Your task to perform on an android device: Search for "acer predator" on walmart.com, select the first entry, add it to the cart, then select checkout. Image 0: 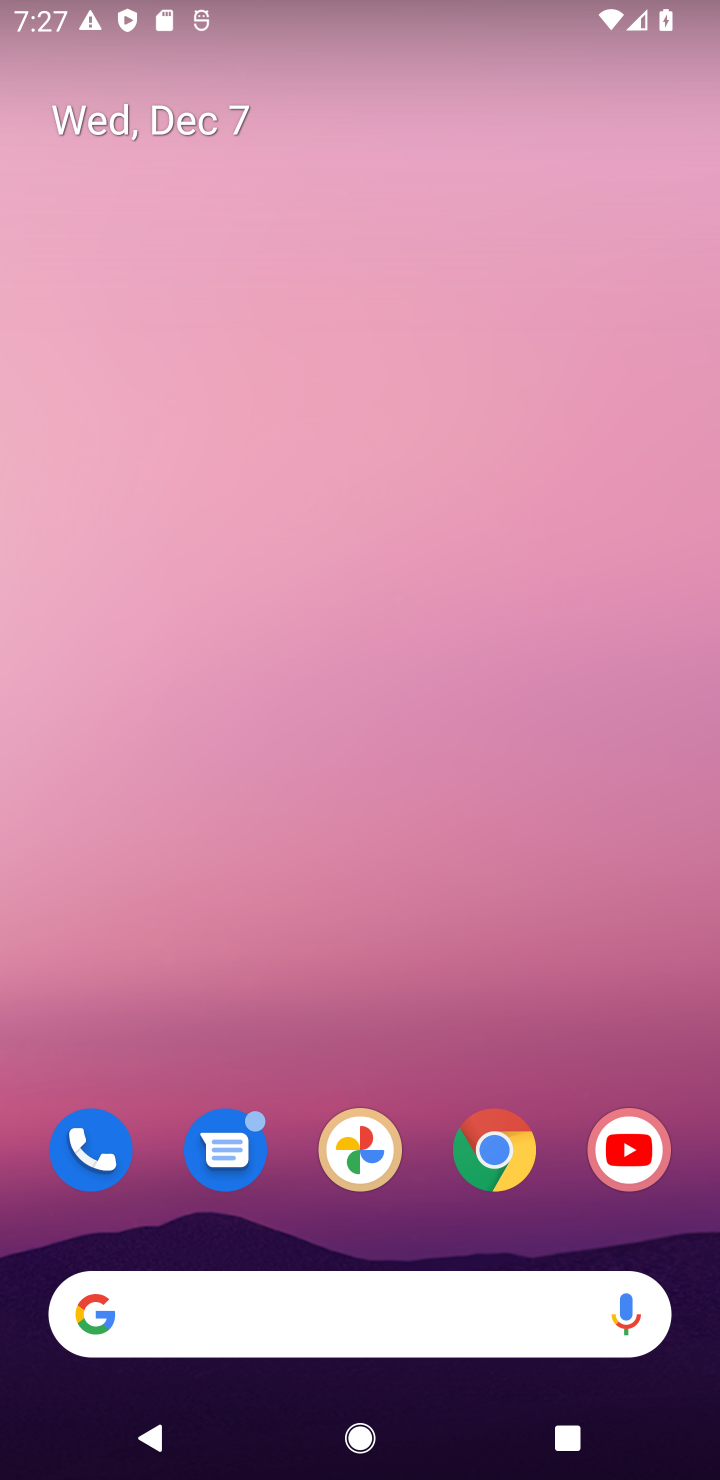
Step 0: click (503, 1164)
Your task to perform on an android device: Search for "acer predator" on walmart.com, select the first entry, add it to the cart, then select checkout. Image 1: 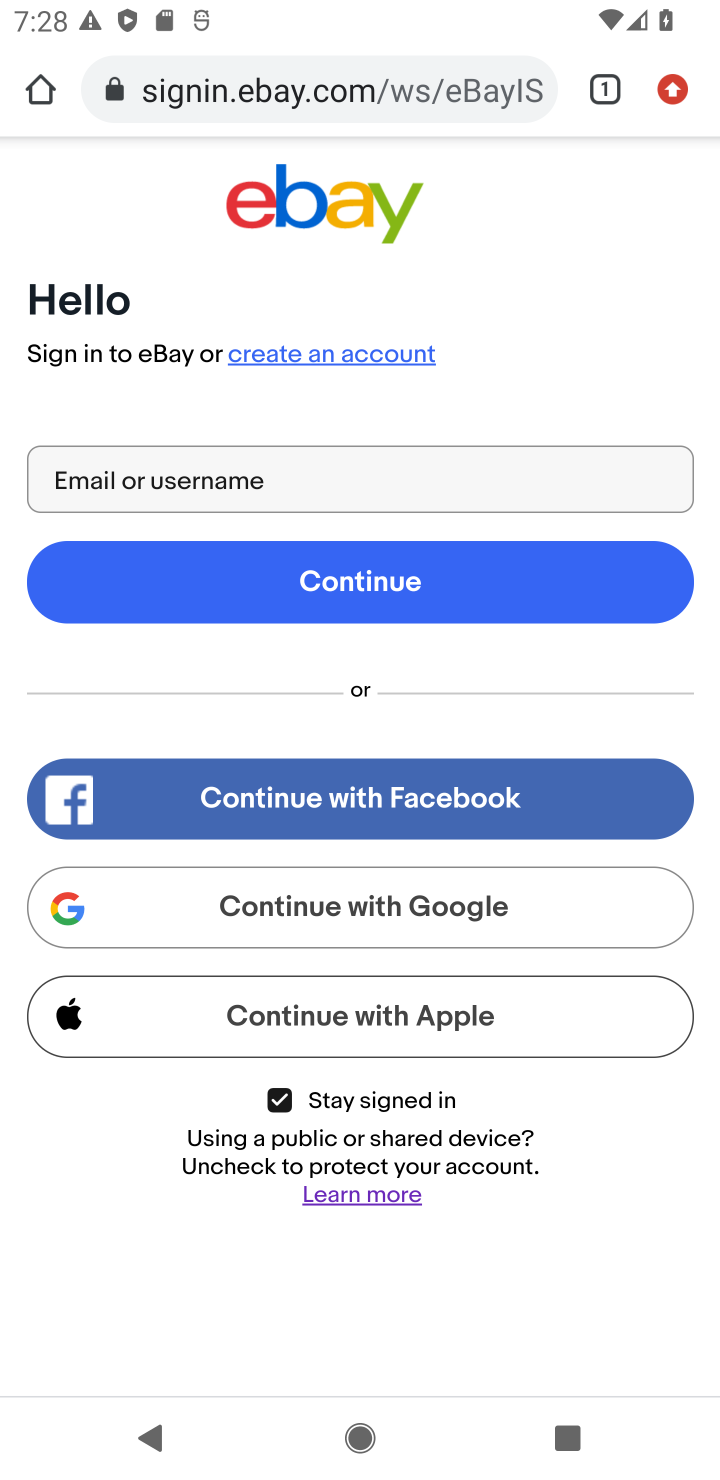
Step 1: click (343, 94)
Your task to perform on an android device: Search for "acer predator" on walmart.com, select the first entry, add it to the cart, then select checkout. Image 2: 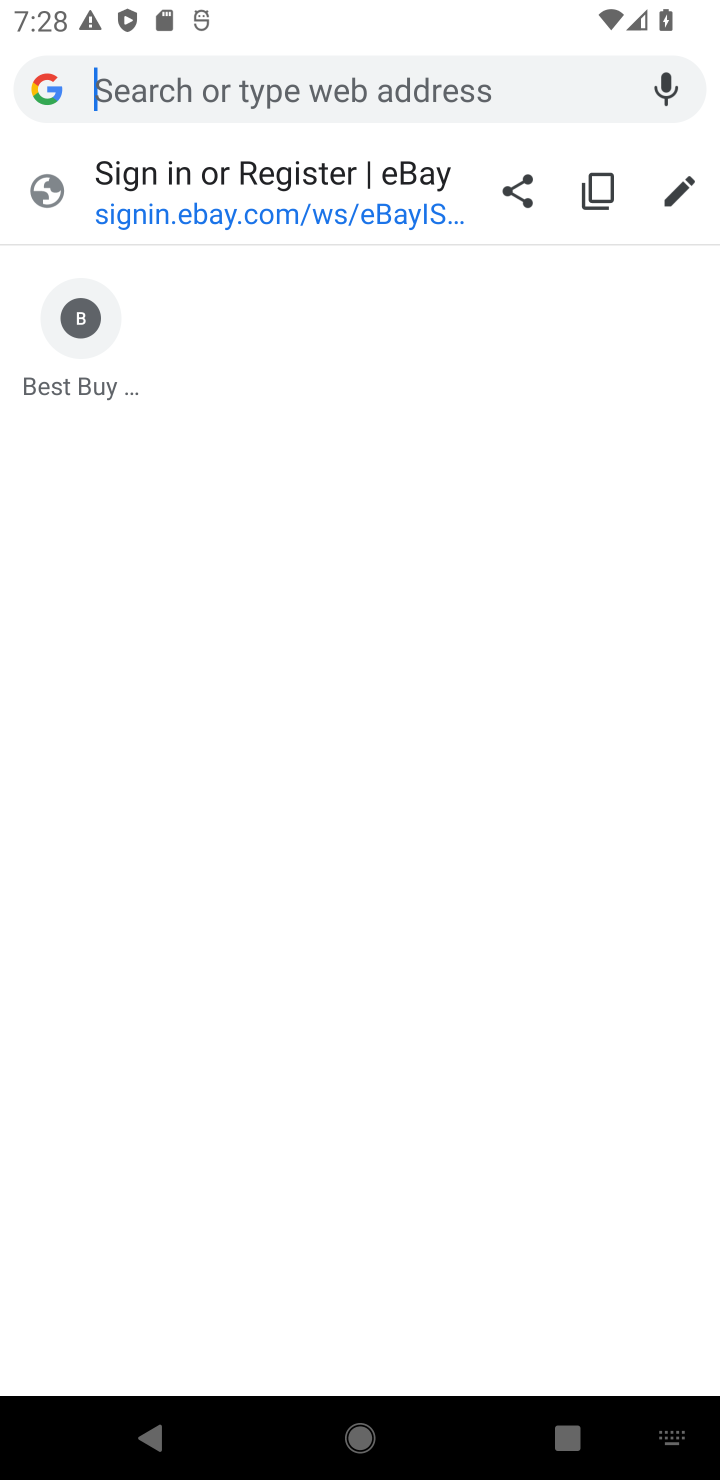
Step 2: type "walmart"
Your task to perform on an android device: Search for "acer predator" on walmart.com, select the first entry, add it to the cart, then select checkout. Image 3: 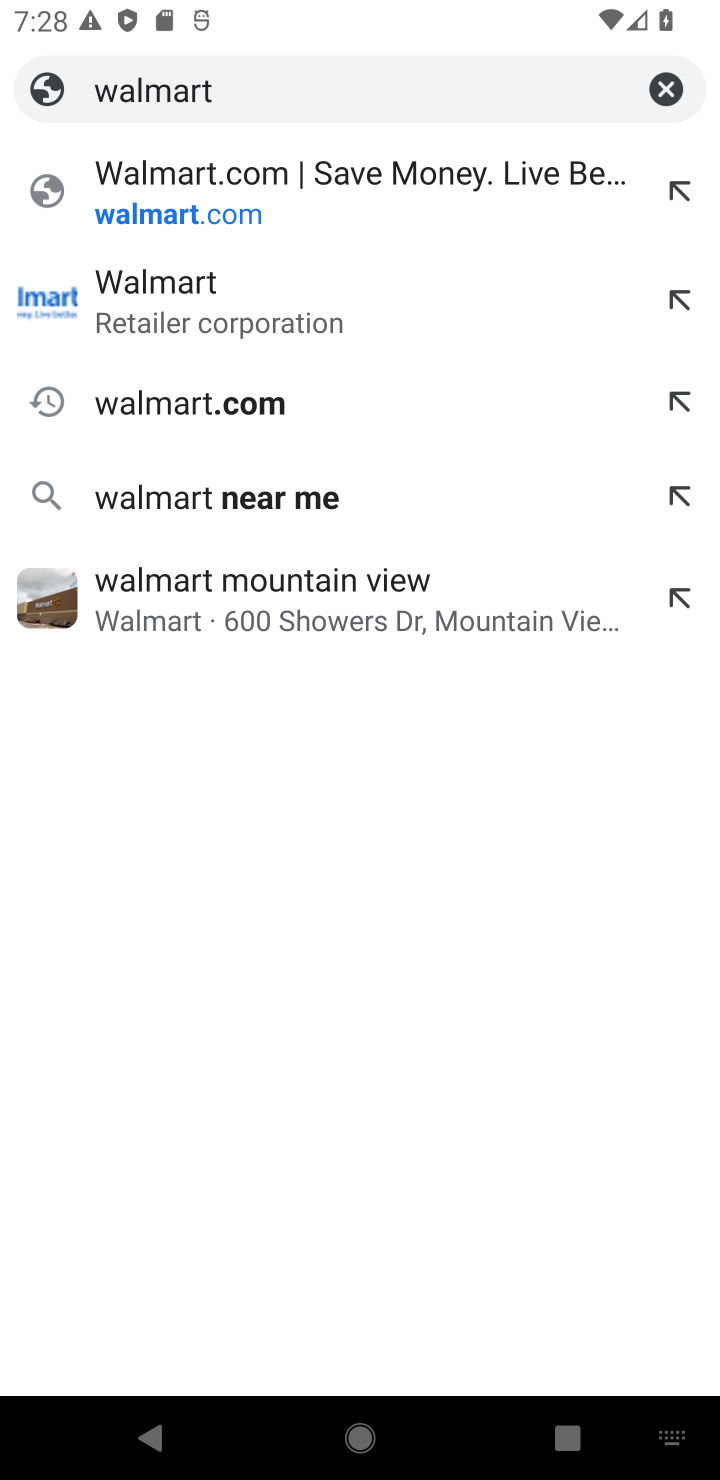
Step 3: click (439, 191)
Your task to perform on an android device: Search for "acer predator" on walmart.com, select the first entry, add it to the cart, then select checkout. Image 4: 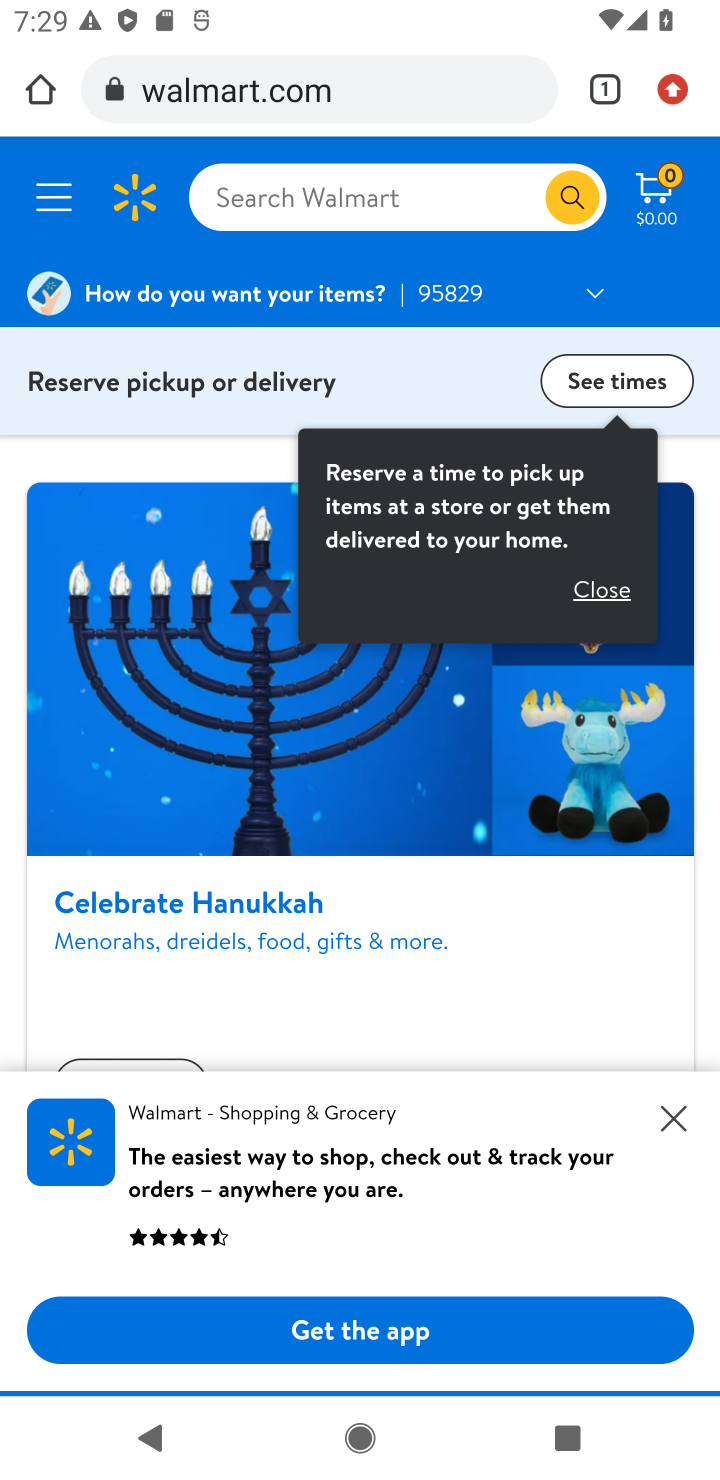
Step 4: click (439, 191)
Your task to perform on an android device: Search for "acer predator" on walmart.com, select the first entry, add it to the cart, then select checkout. Image 5: 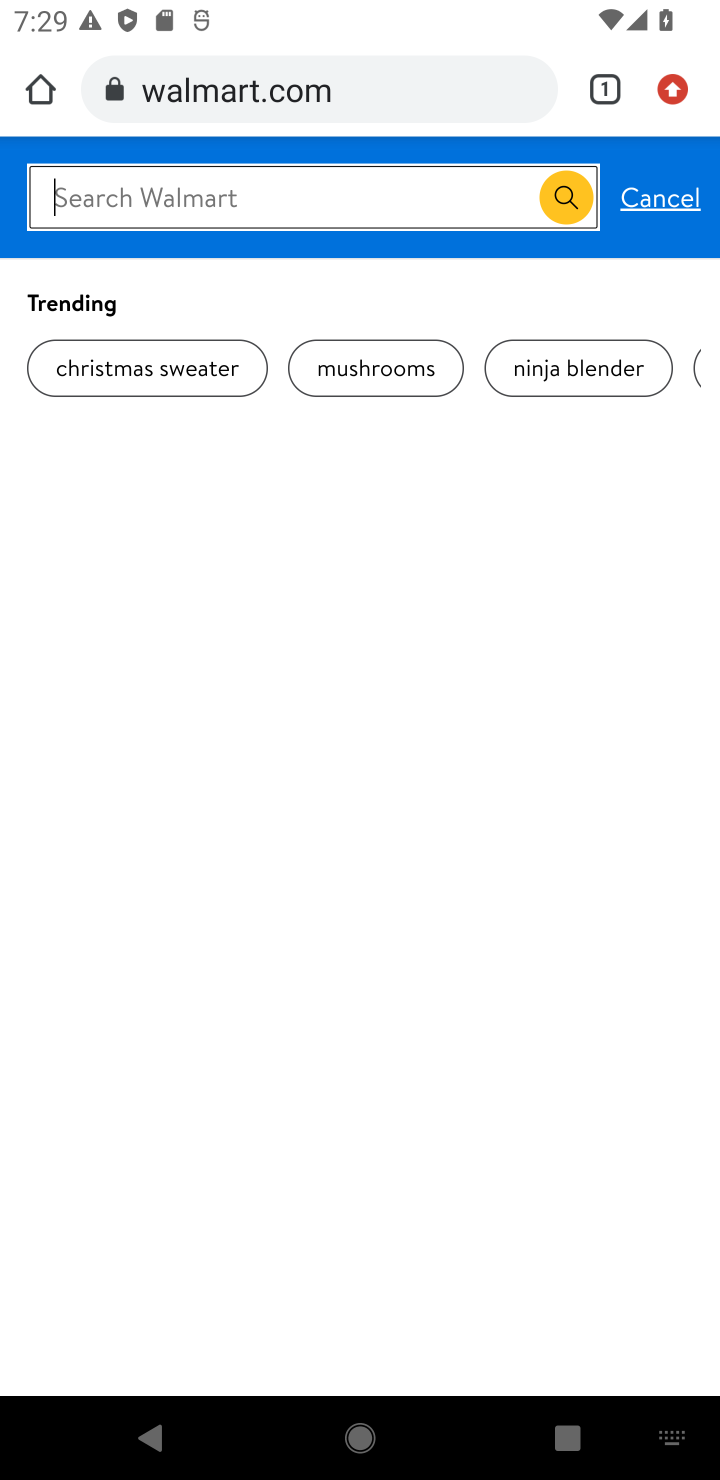
Step 5: type "acer predator"
Your task to perform on an android device: Search for "acer predator" on walmart.com, select the first entry, add it to the cart, then select checkout. Image 6: 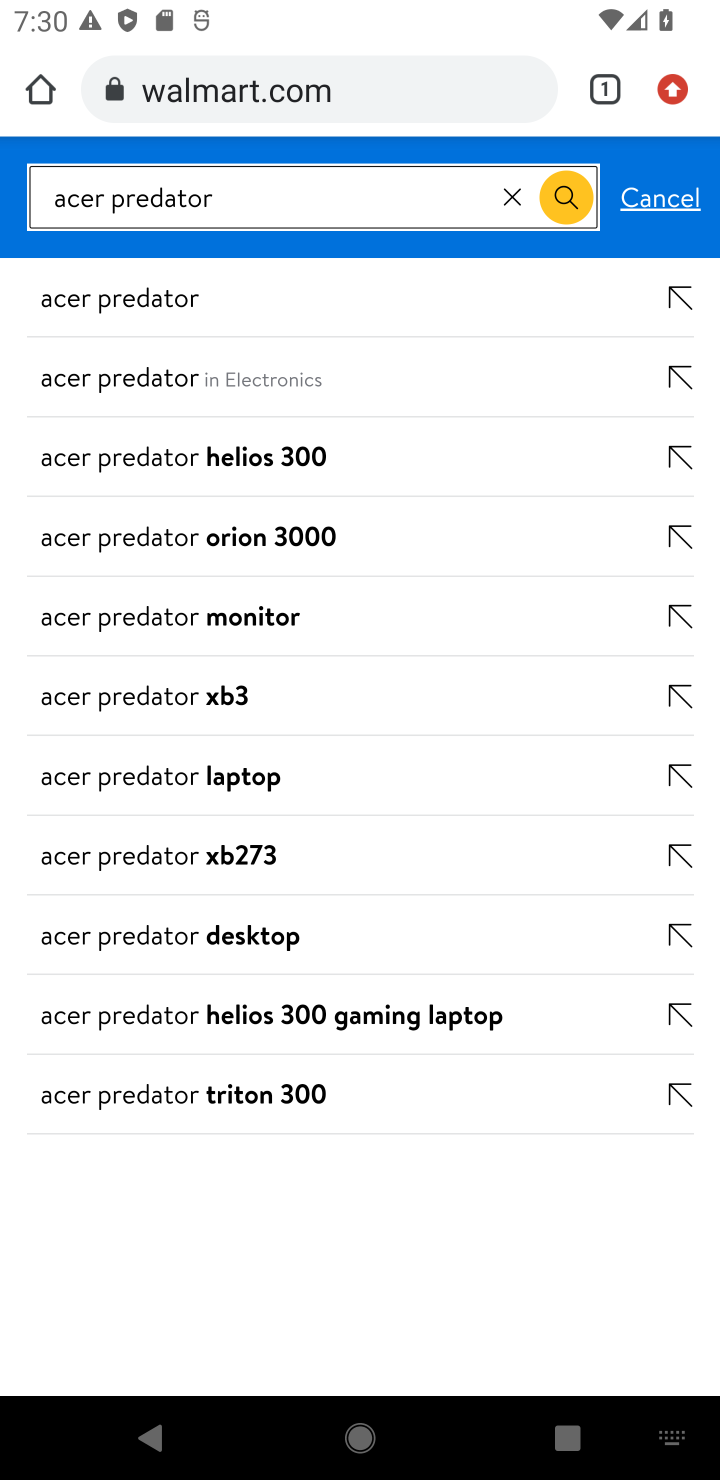
Step 6: click (236, 295)
Your task to perform on an android device: Search for "acer predator" on walmart.com, select the first entry, add it to the cart, then select checkout. Image 7: 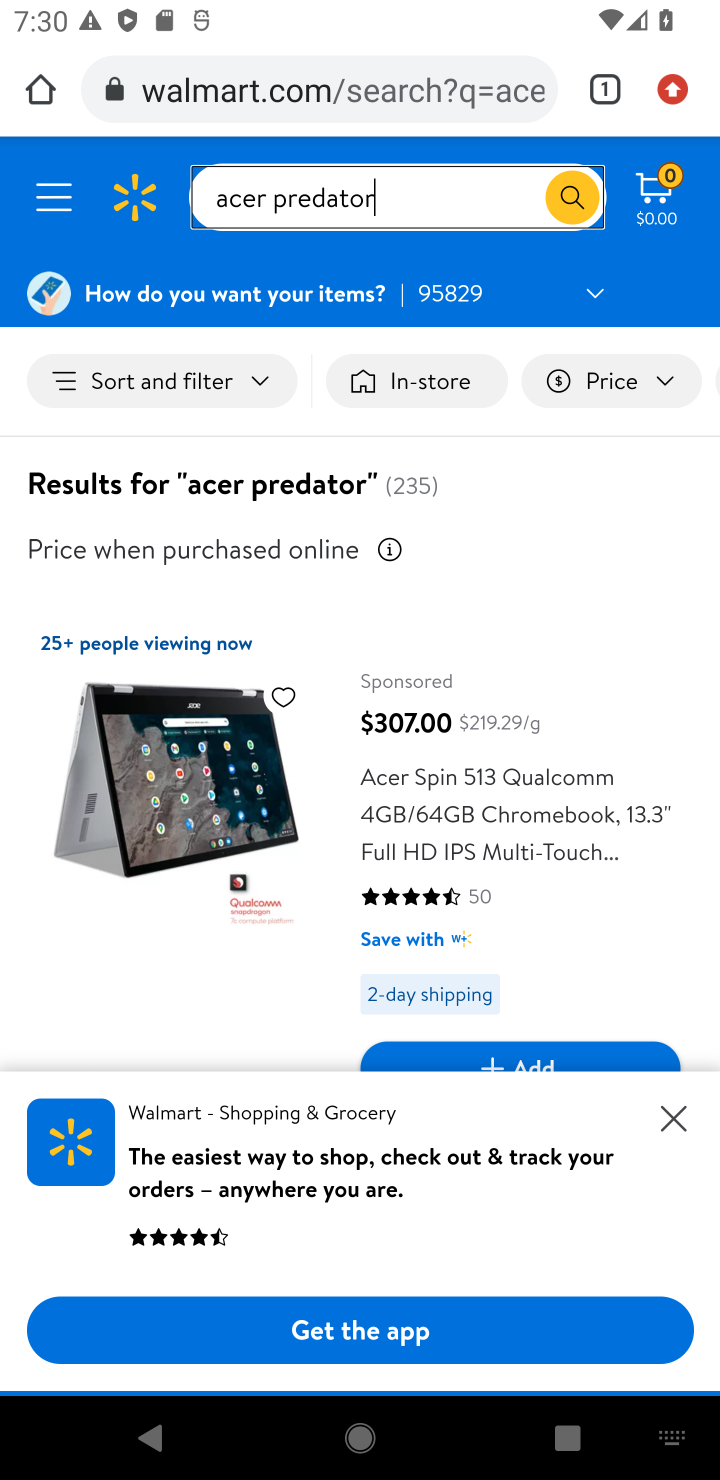
Step 7: click (670, 1115)
Your task to perform on an android device: Search for "acer predator" on walmart.com, select the first entry, add it to the cart, then select checkout. Image 8: 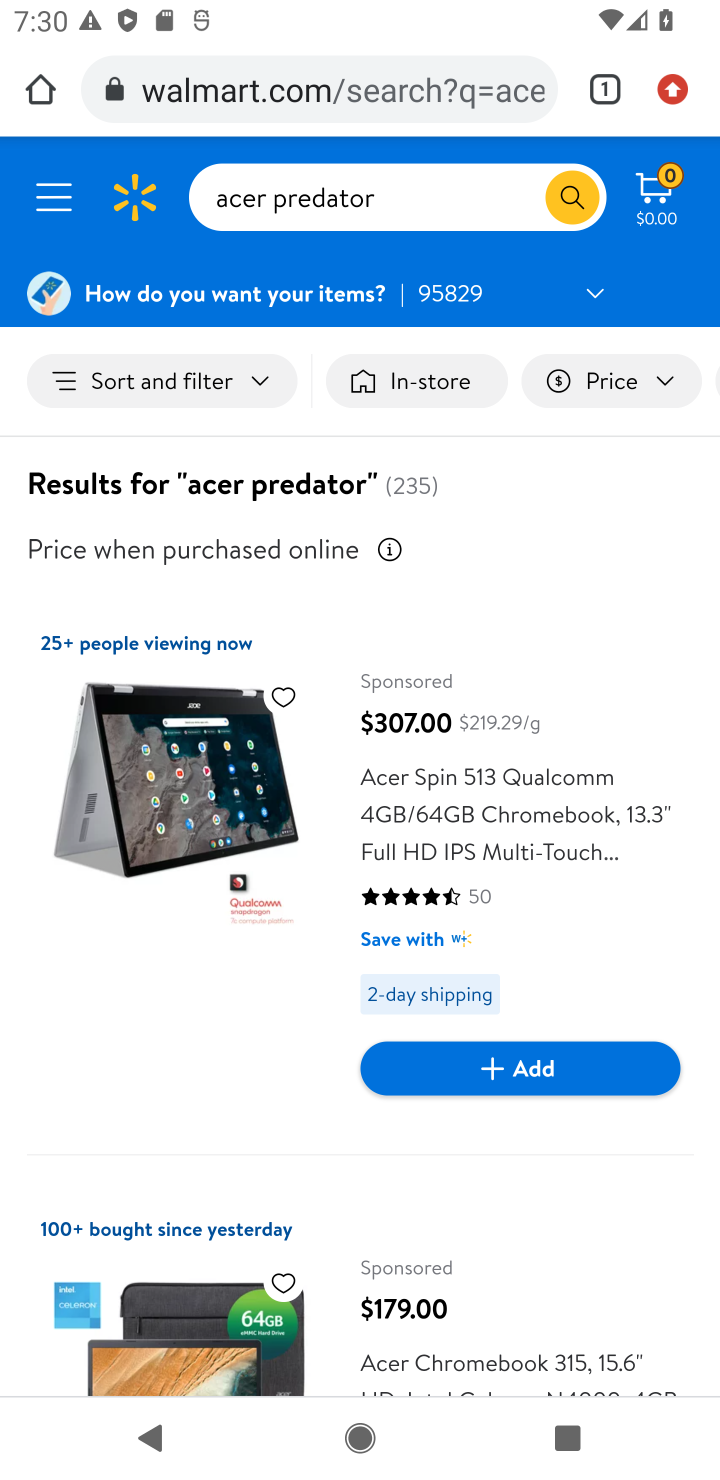
Step 8: click (549, 1068)
Your task to perform on an android device: Search for "acer predator" on walmart.com, select the first entry, add it to the cart, then select checkout. Image 9: 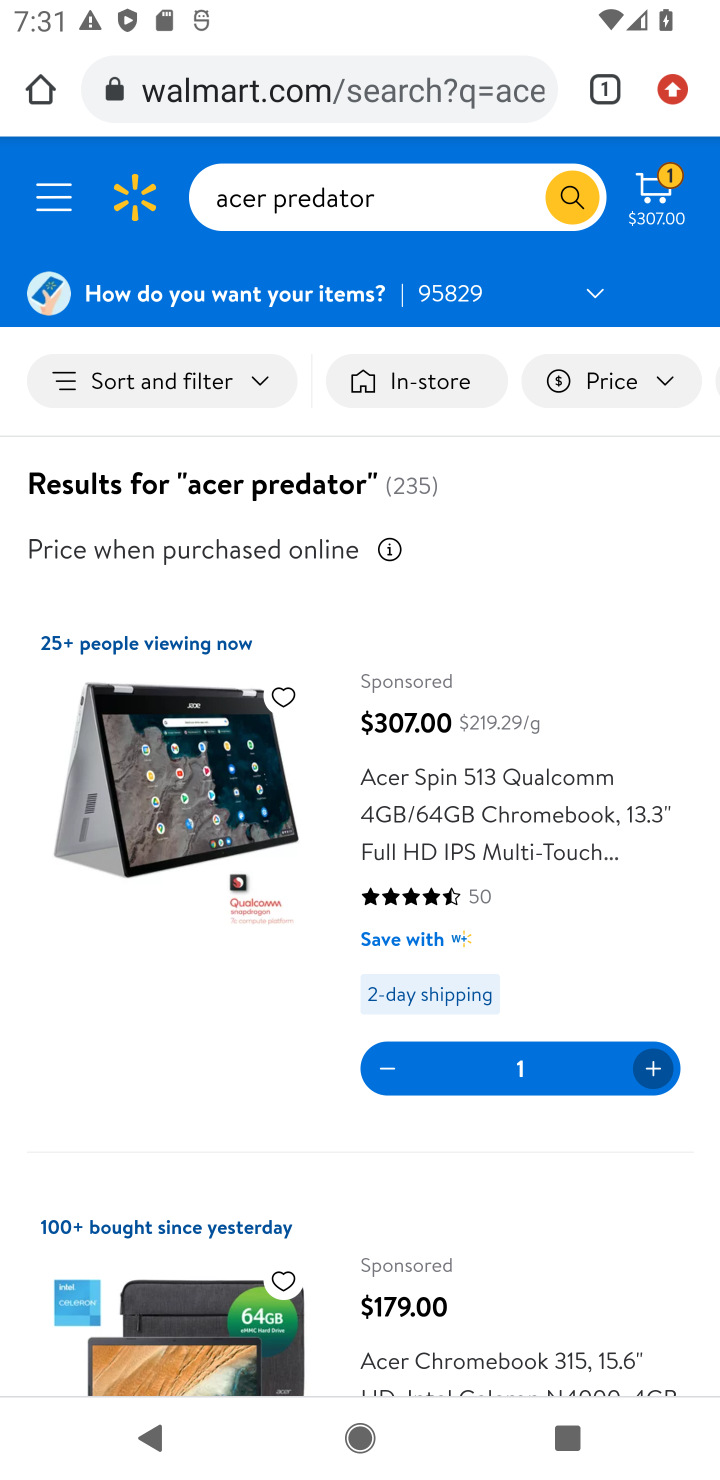
Step 9: click (661, 193)
Your task to perform on an android device: Search for "acer predator" on walmart.com, select the first entry, add it to the cart, then select checkout. Image 10: 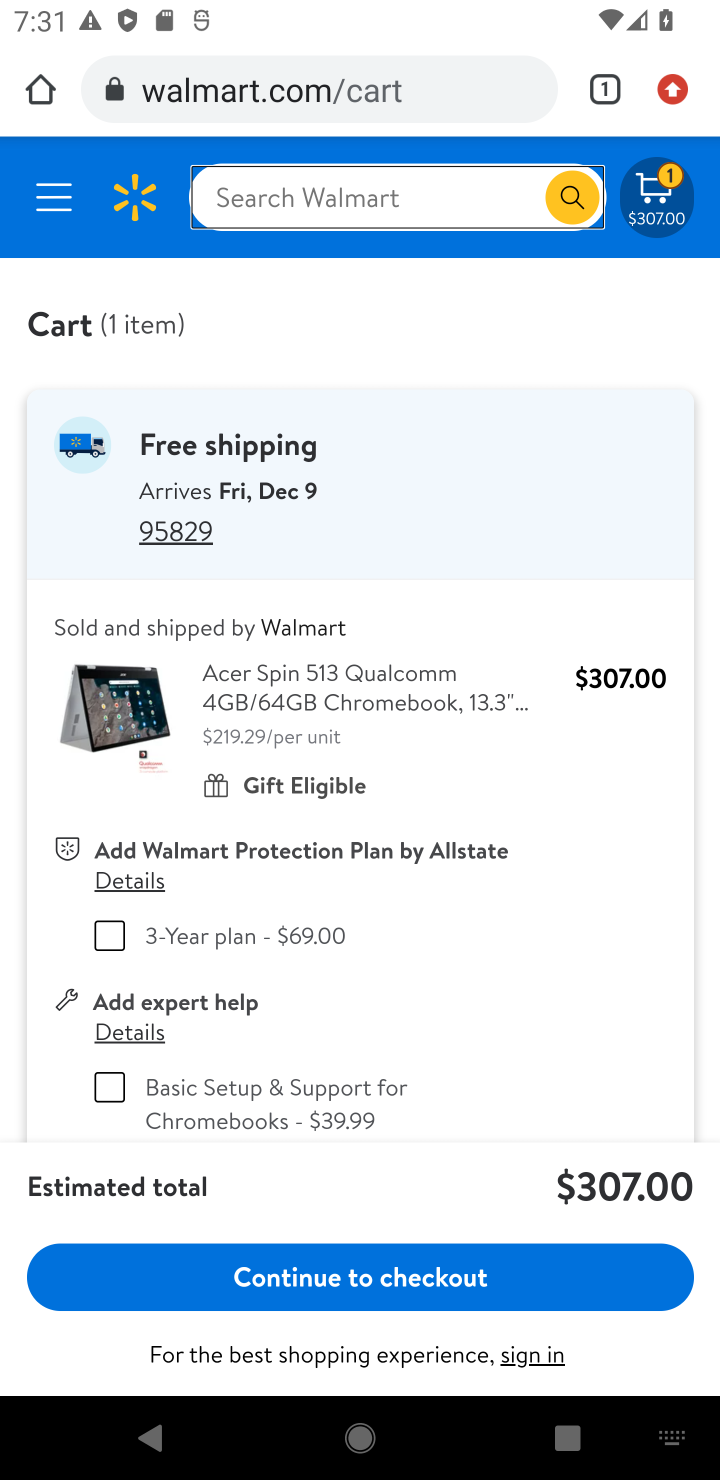
Step 10: click (362, 1270)
Your task to perform on an android device: Search for "acer predator" on walmart.com, select the first entry, add it to the cart, then select checkout. Image 11: 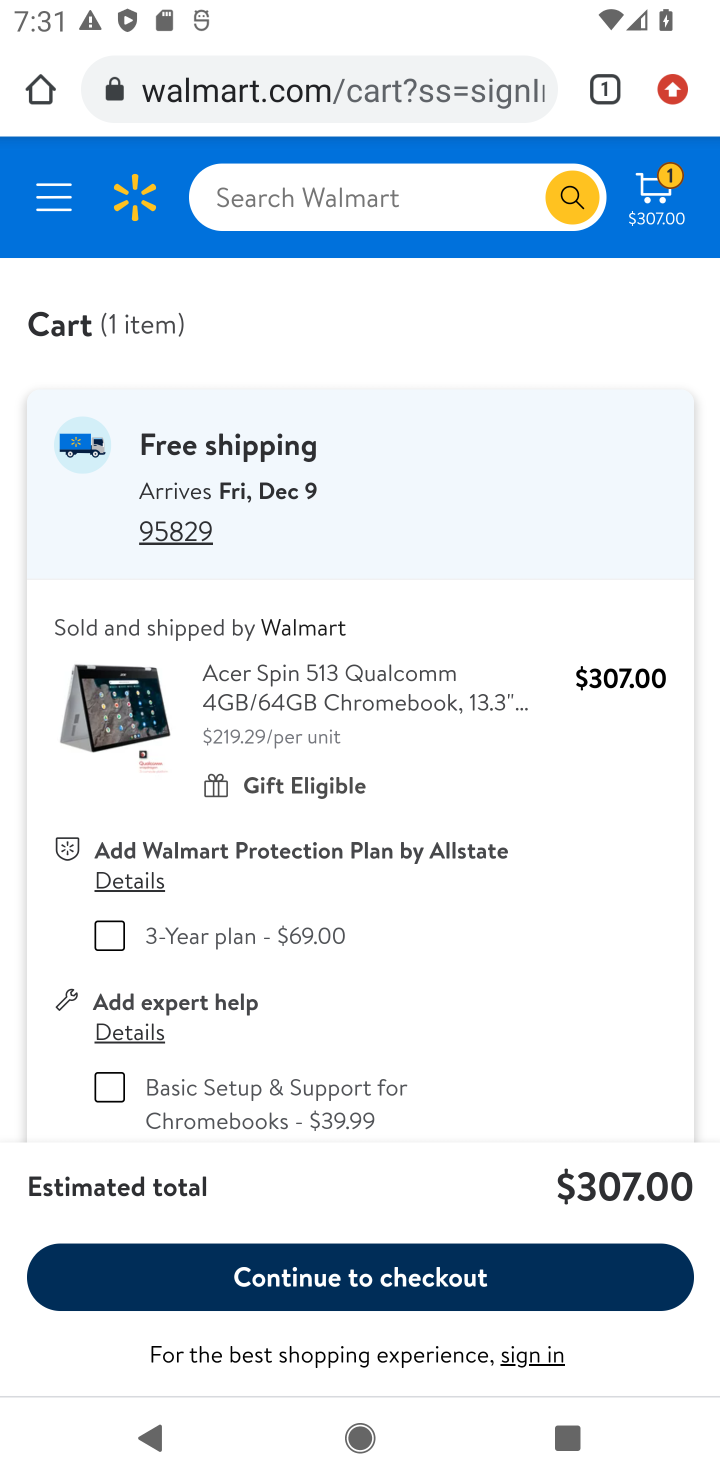
Step 11: task complete